Your task to perform on an android device: add a contact in the contacts app Image 0: 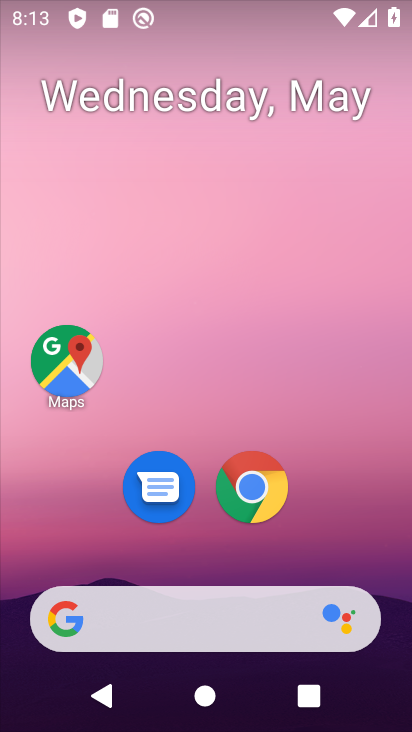
Step 0: drag from (217, 530) to (228, 191)
Your task to perform on an android device: add a contact in the contacts app Image 1: 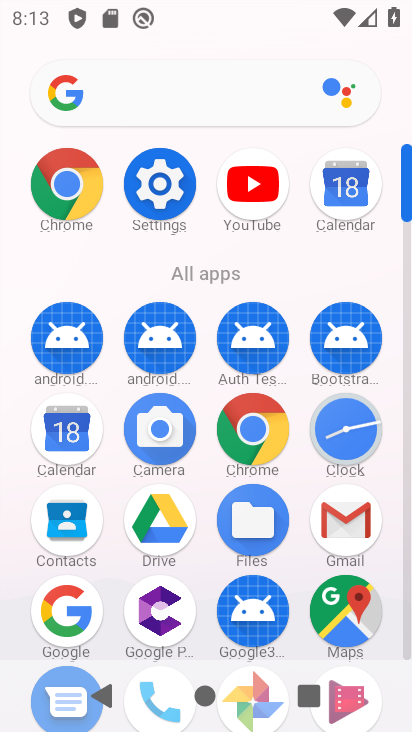
Step 1: click (69, 529)
Your task to perform on an android device: add a contact in the contacts app Image 2: 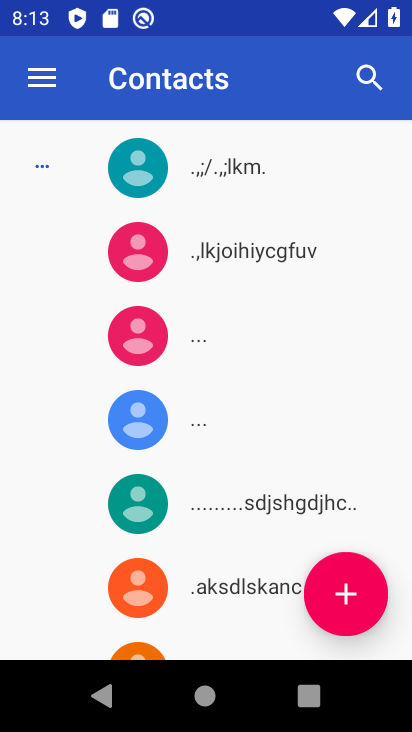
Step 2: click (343, 605)
Your task to perform on an android device: add a contact in the contacts app Image 3: 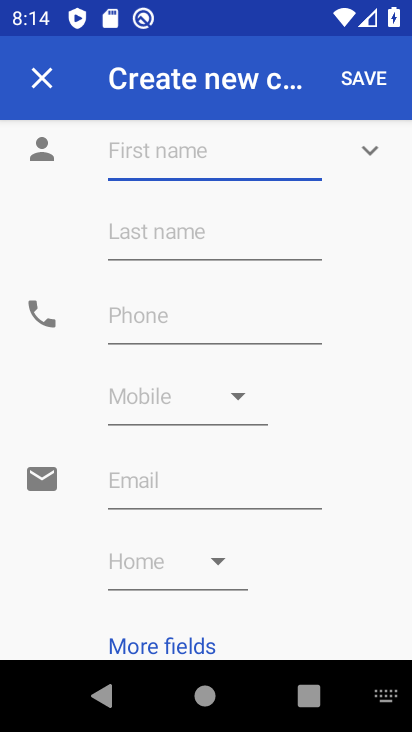
Step 3: type "jhvu"
Your task to perform on an android device: add a contact in the contacts app Image 4: 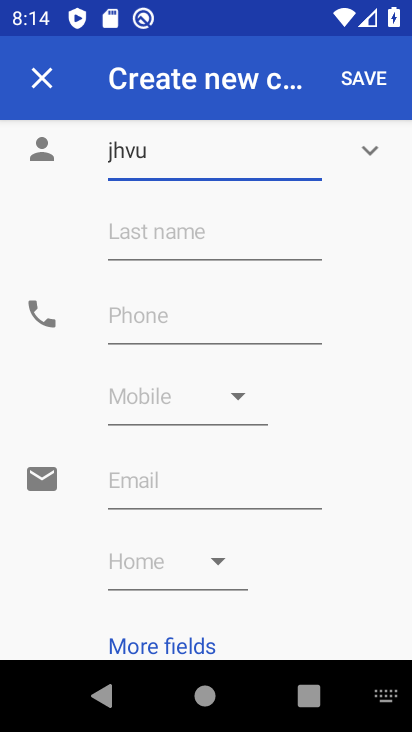
Step 4: click (196, 327)
Your task to perform on an android device: add a contact in the contacts app Image 5: 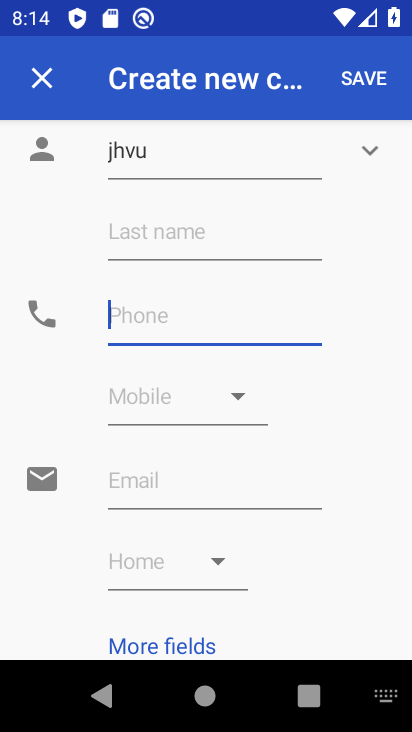
Step 5: type "875785867"
Your task to perform on an android device: add a contact in the contacts app Image 6: 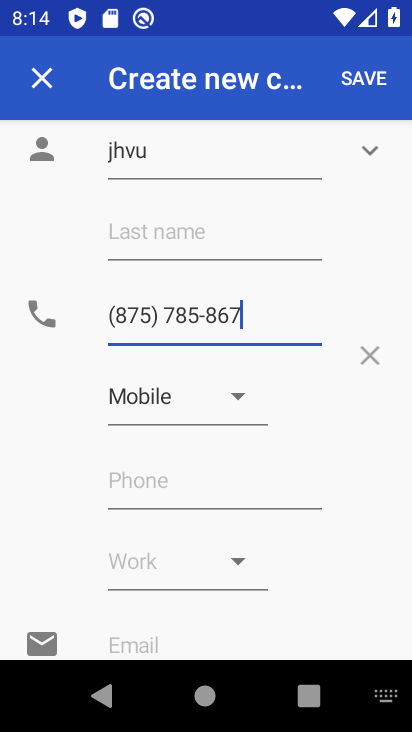
Step 6: click (364, 79)
Your task to perform on an android device: add a contact in the contacts app Image 7: 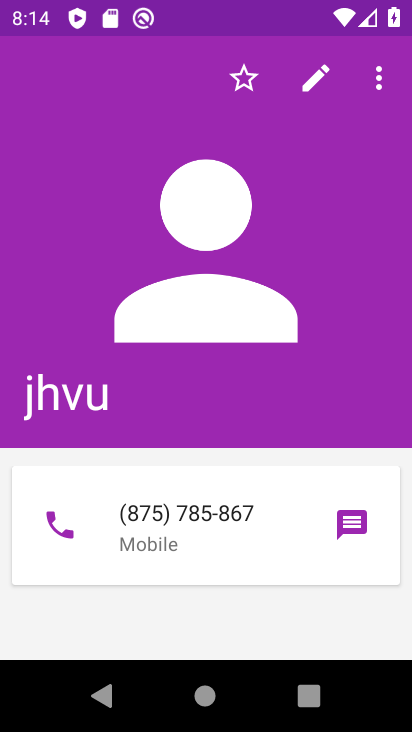
Step 7: task complete